Your task to perform on an android device: Open accessibility settings Image 0: 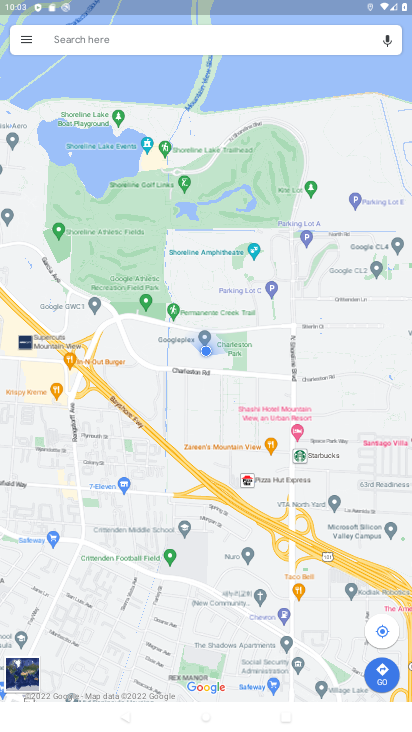
Step 0: click (268, 284)
Your task to perform on an android device: Open accessibility settings Image 1: 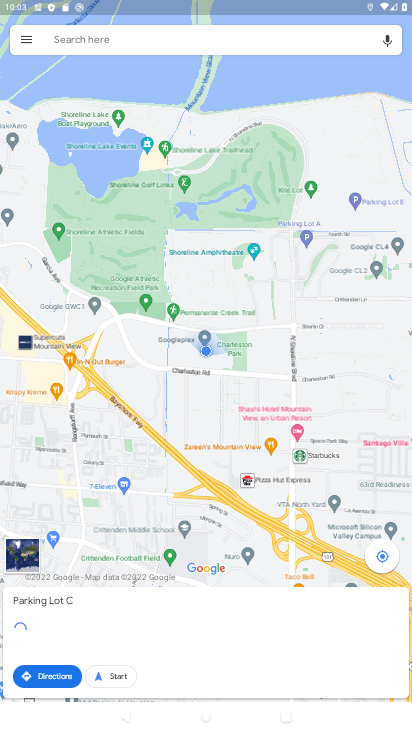
Step 1: drag from (224, 604) to (344, 172)
Your task to perform on an android device: Open accessibility settings Image 2: 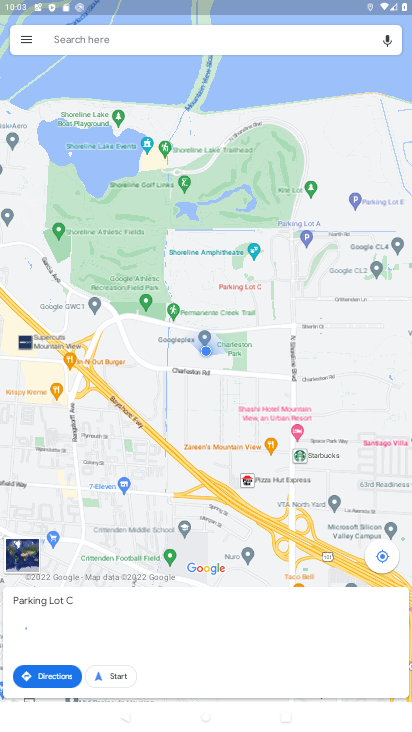
Step 2: press home button
Your task to perform on an android device: Open accessibility settings Image 3: 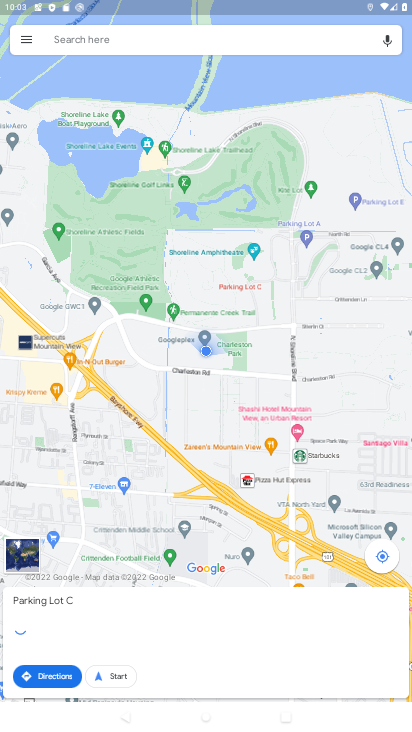
Step 3: drag from (237, 115) to (379, 51)
Your task to perform on an android device: Open accessibility settings Image 4: 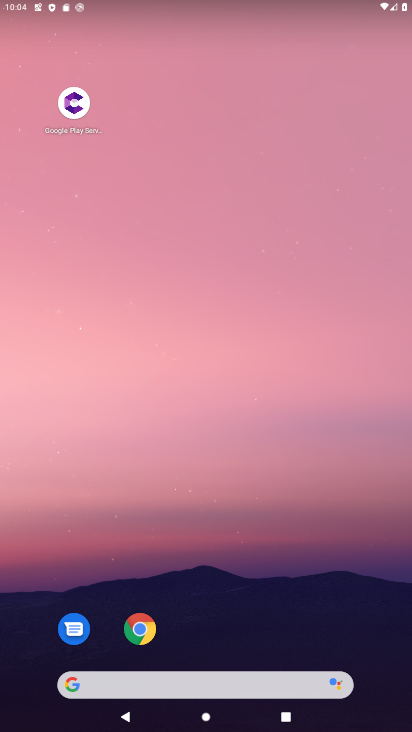
Step 4: drag from (230, 641) to (245, 0)
Your task to perform on an android device: Open accessibility settings Image 5: 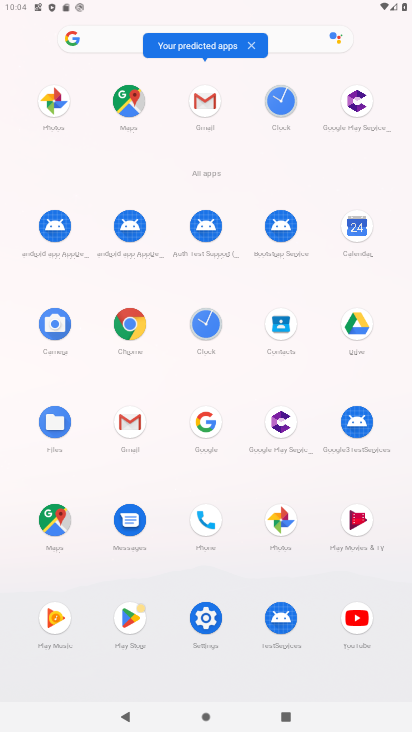
Step 5: click (183, 629)
Your task to perform on an android device: Open accessibility settings Image 6: 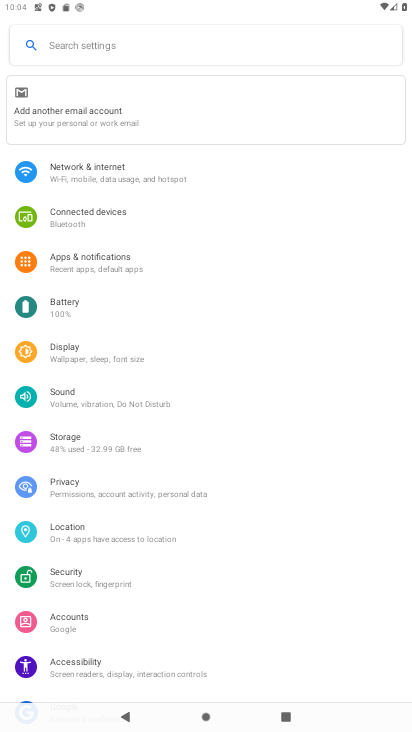
Step 6: drag from (277, 452) to (405, 101)
Your task to perform on an android device: Open accessibility settings Image 7: 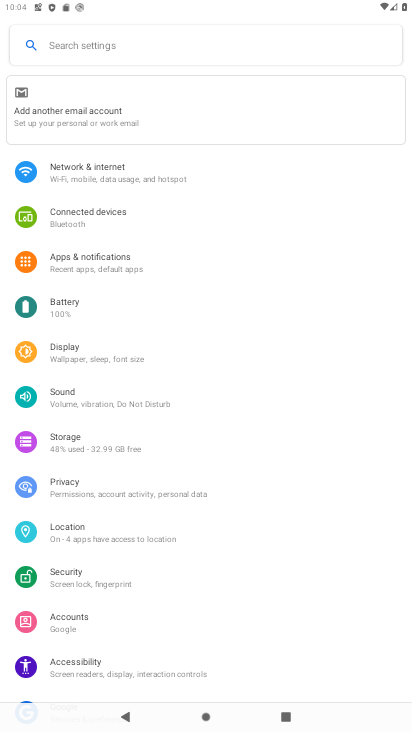
Step 7: drag from (110, 593) to (201, 105)
Your task to perform on an android device: Open accessibility settings Image 8: 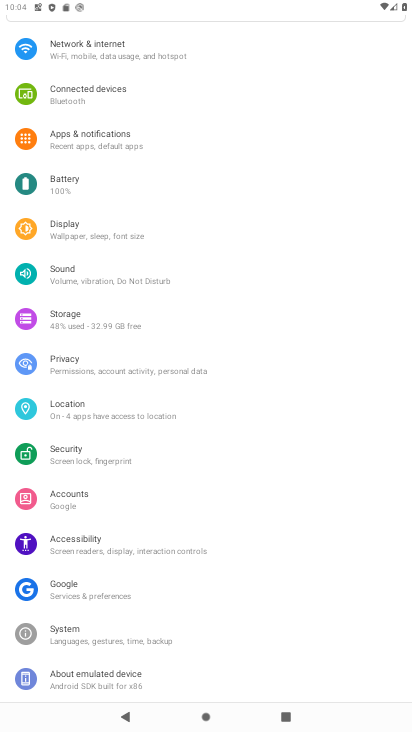
Step 8: click (95, 551)
Your task to perform on an android device: Open accessibility settings Image 9: 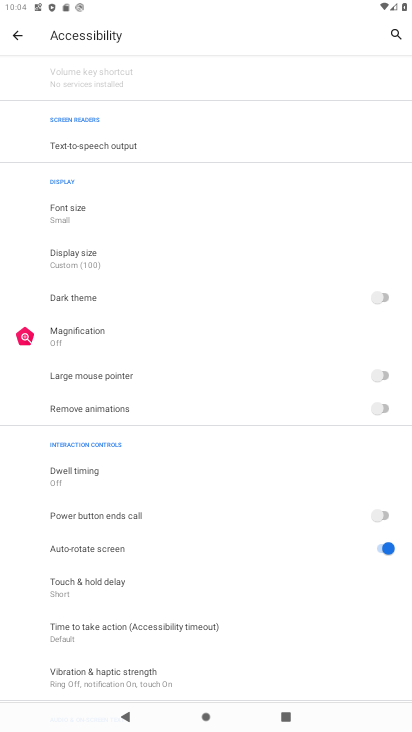
Step 9: task complete